Your task to perform on an android device: Open the web browser Image 0: 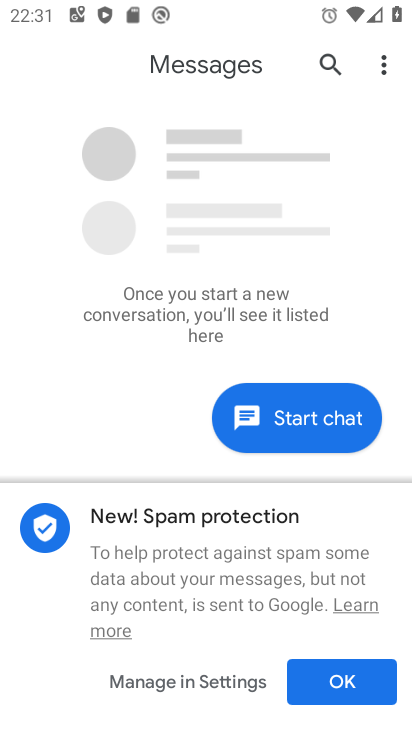
Step 0: press home button
Your task to perform on an android device: Open the web browser Image 1: 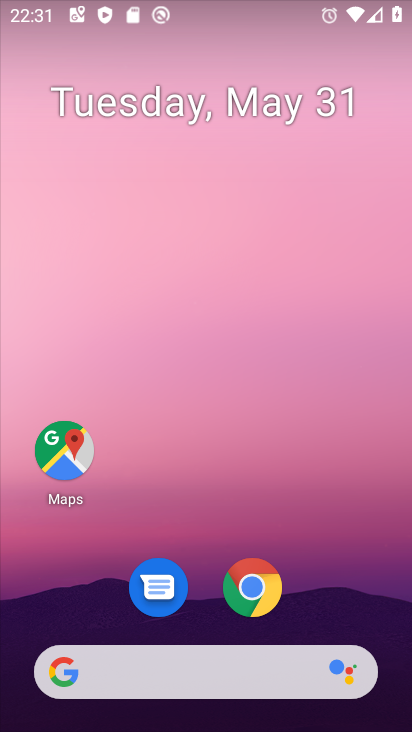
Step 1: drag from (370, 600) to (356, 208)
Your task to perform on an android device: Open the web browser Image 2: 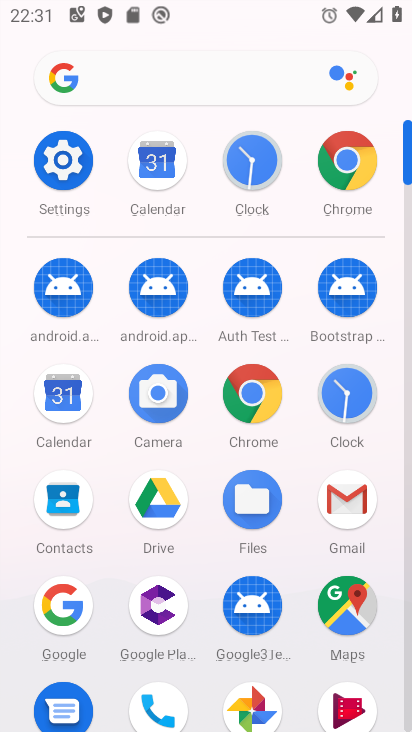
Step 2: click (249, 406)
Your task to perform on an android device: Open the web browser Image 3: 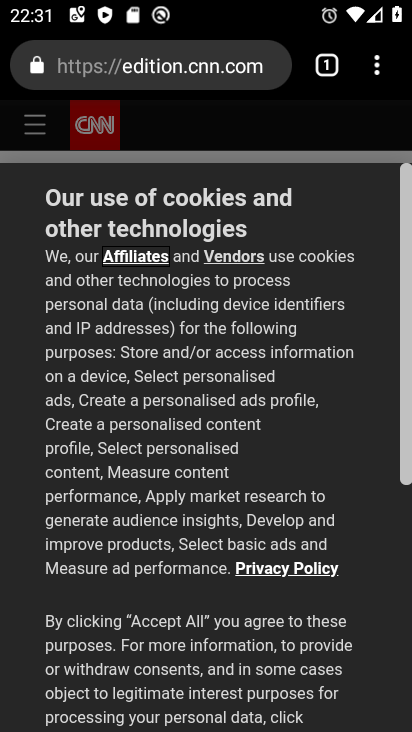
Step 3: task complete